Your task to perform on an android device: Go to battery settings Image 0: 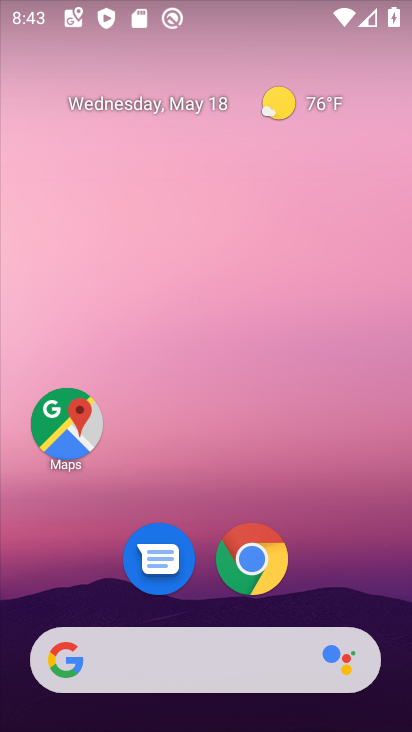
Step 0: drag from (345, 553) to (363, 7)
Your task to perform on an android device: Go to battery settings Image 1: 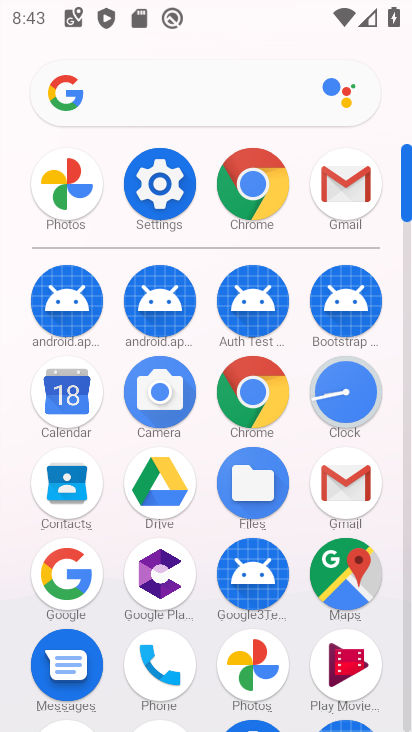
Step 1: click (151, 217)
Your task to perform on an android device: Go to battery settings Image 2: 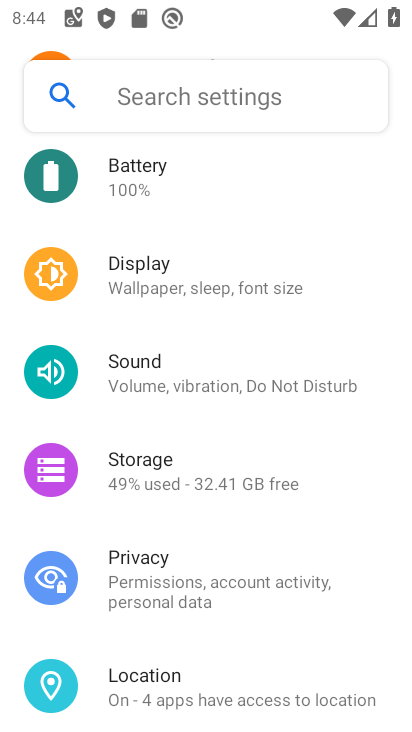
Step 2: click (174, 176)
Your task to perform on an android device: Go to battery settings Image 3: 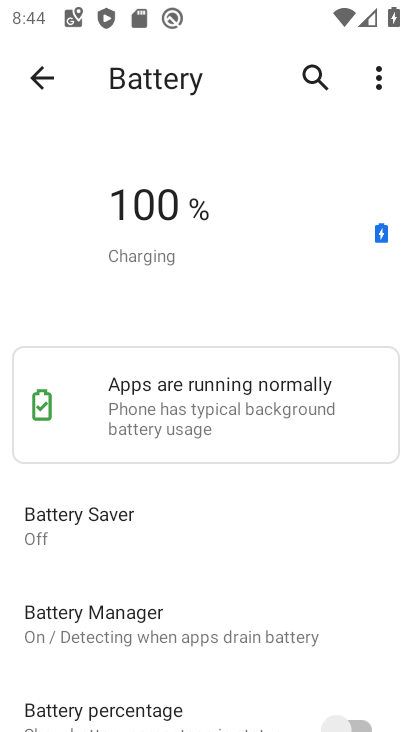
Step 3: task complete